Your task to perform on an android device: Open internet settings Image 0: 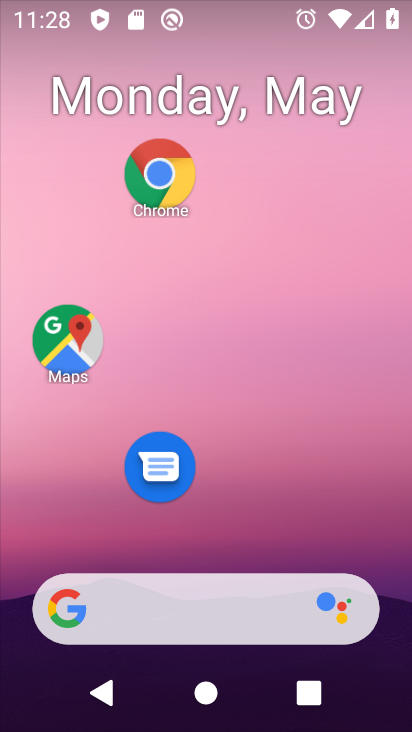
Step 0: click (179, 207)
Your task to perform on an android device: Open internet settings Image 1: 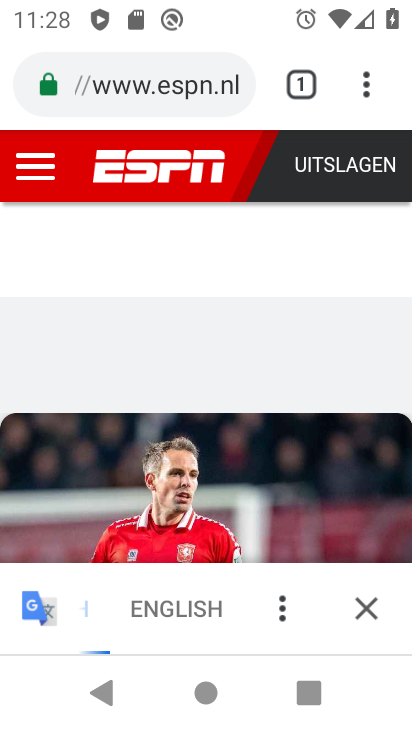
Step 1: press home button
Your task to perform on an android device: Open internet settings Image 2: 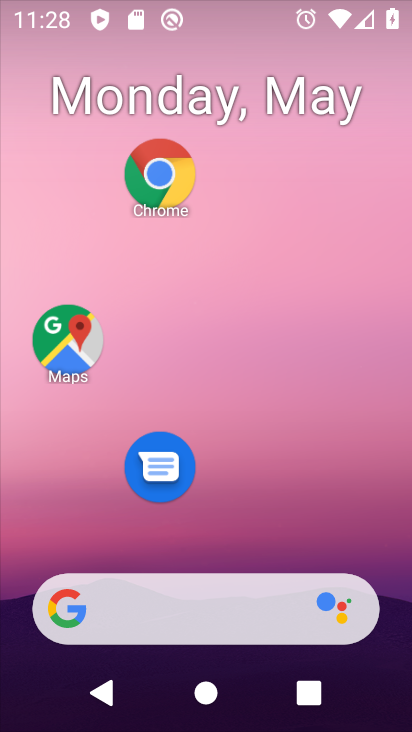
Step 2: drag from (299, 559) to (276, 32)
Your task to perform on an android device: Open internet settings Image 3: 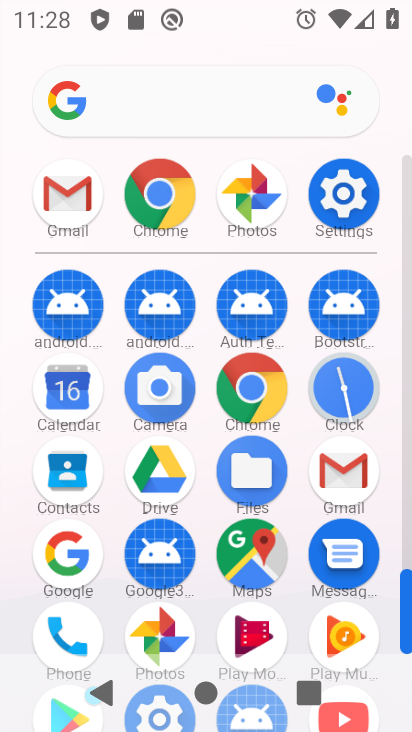
Step 3: click (355, 189)
Your task to perform on an android device: Open internet settings Image 4: 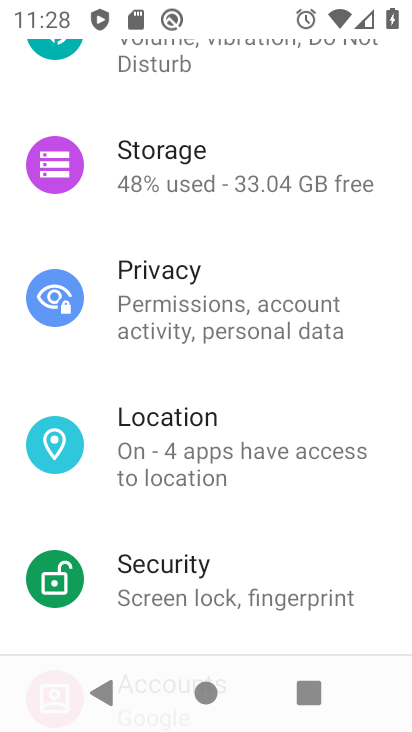
Step 4: drag from (217, 159) to (204, 636)
Your task to perform on an android device: Open internet settings Image 5: 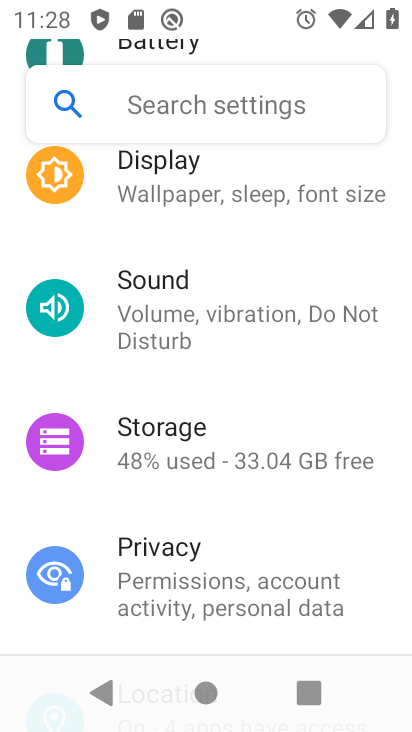
Step 5: drag from (199, 180) to (210, 689)
Your task to perform on an android device: Open internet settings Image 6: 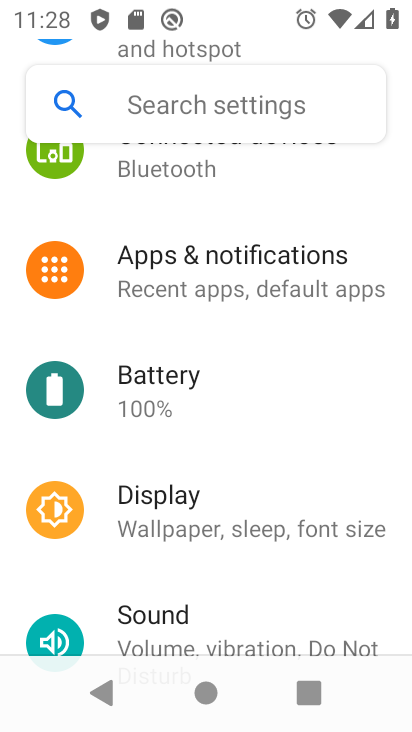
Step 6: drag from (221, 314) to (218, 679)
Your task to perform on an android device: Open internet settings Image 7: 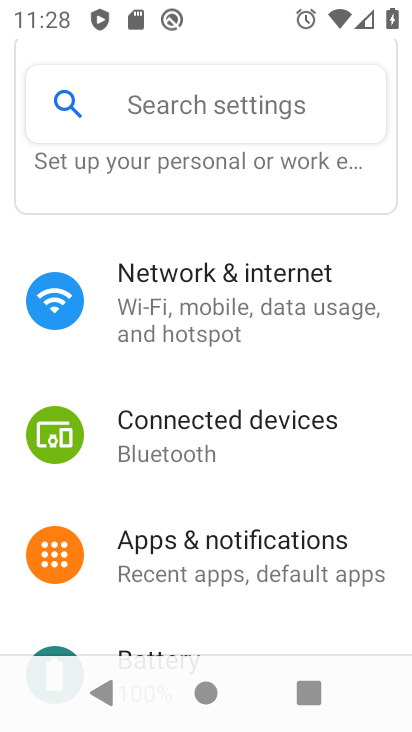
Step 7: click (215, 325)
Your task to perform on an android device: Open internet settings Image 8: 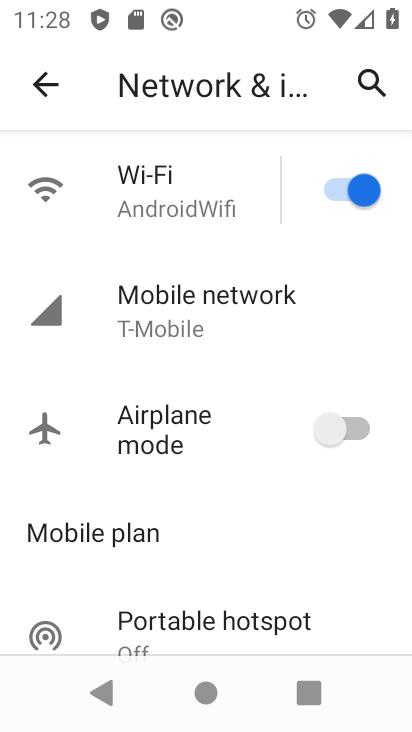
Step 8: task complete